Your task to perform on an android device: Open calendar and show me the second week of next month Image 0: 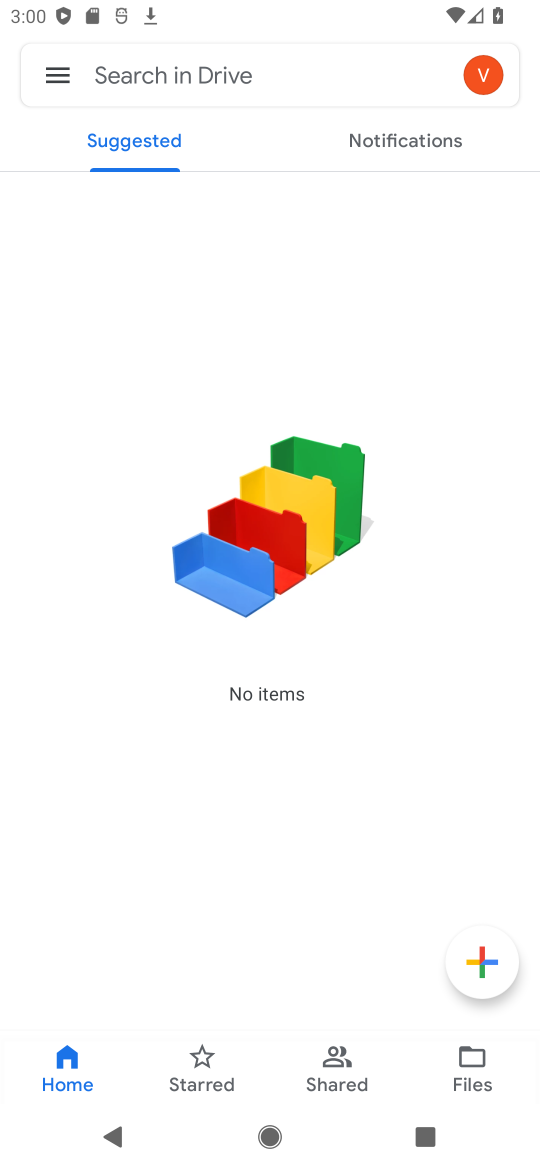
Step 0: press back button
Your task to perform on an android device: Open calendar and show me the second week of next month Image 1: 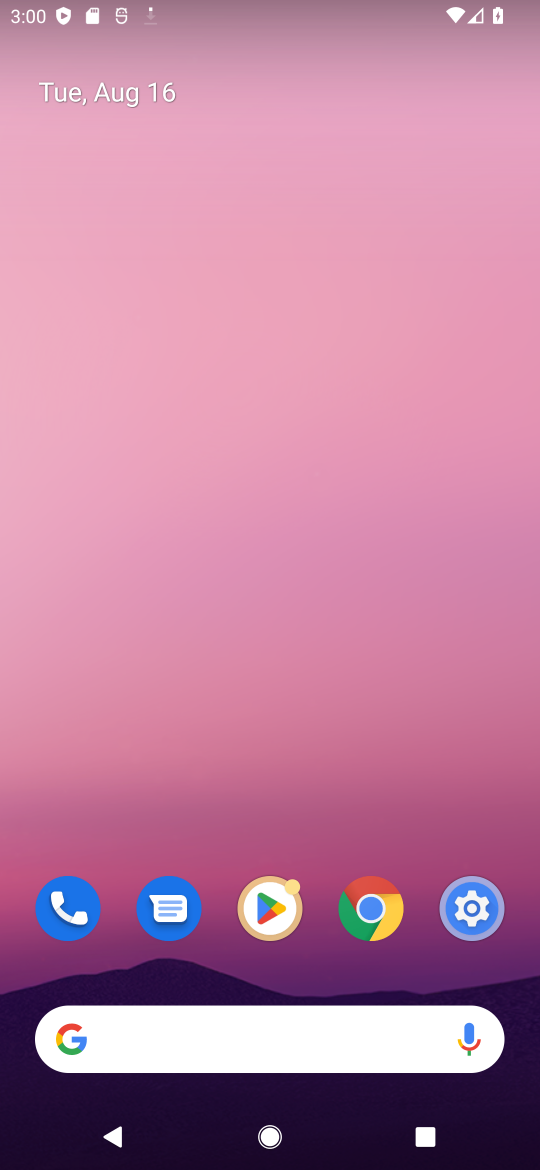
Step 1: drag from (280, 650) to (399, 73)
Your task to perform on an android device: Open calendar and show me the second week of next month Image 2: 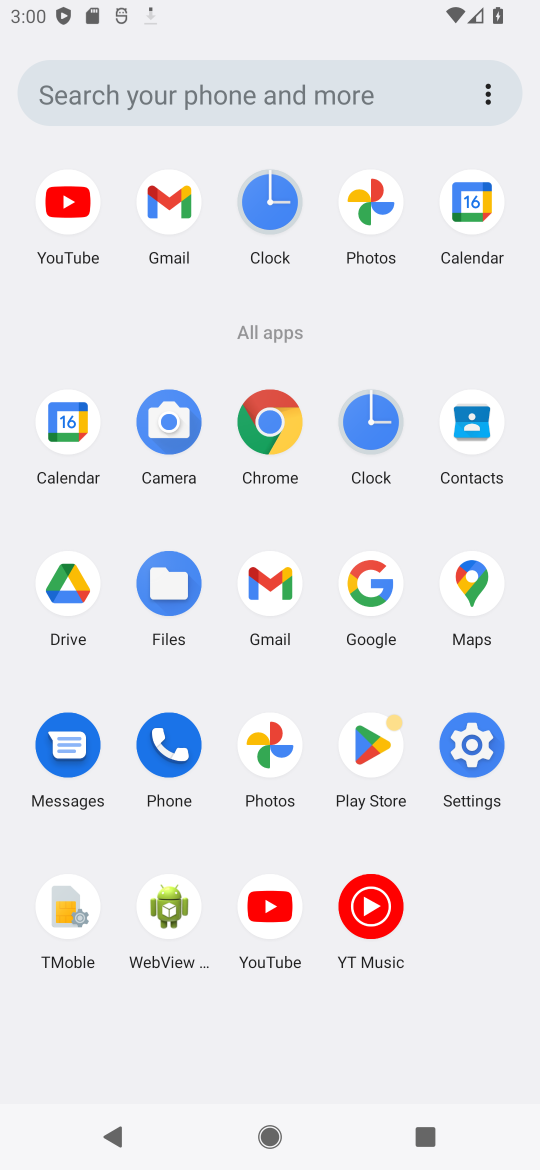
Step 2: click (464, 224)
Your task to perform on an android device: Open calendar and show me the second week of next month Image 3: 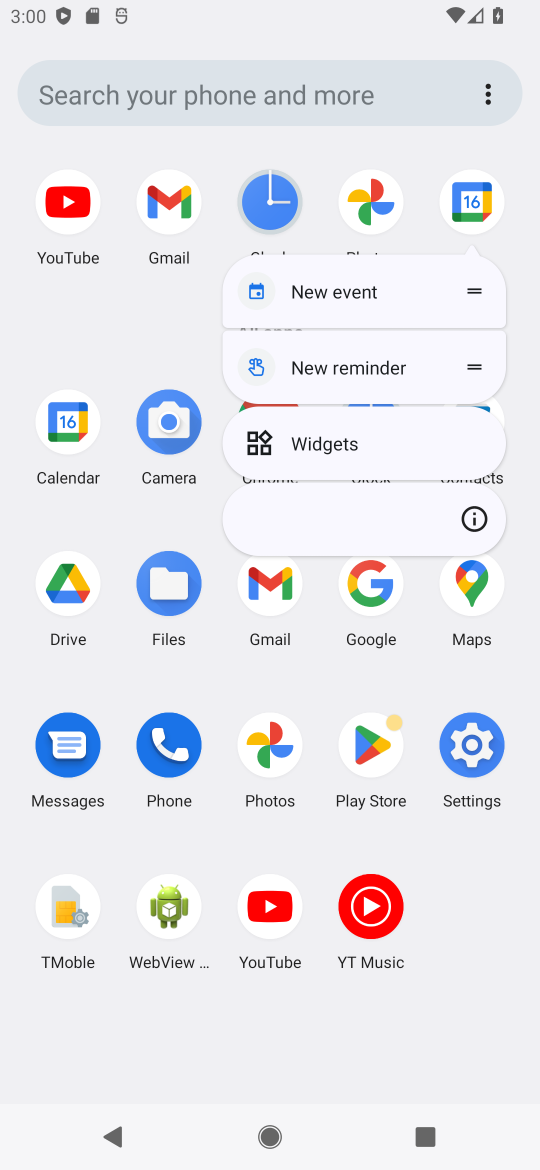
Step 3: click (454, 196)
Your task to perform on an android device: Open calendar and show me the second week of next month Image 4: 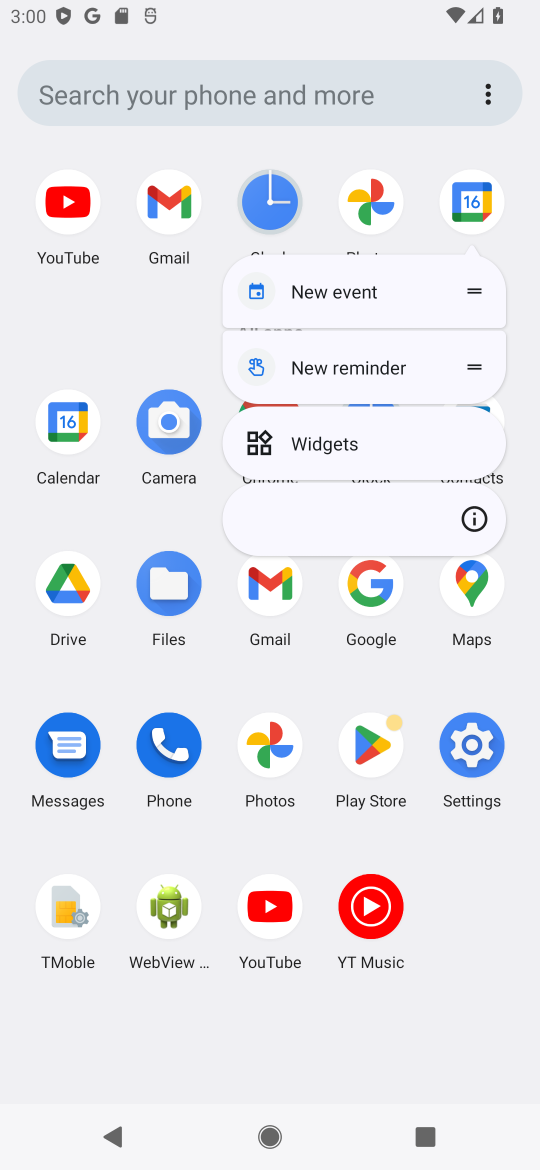
Step 4: click (483, 195)
Your task to perform on an android device: Open calendar and show me the second week of next month Image 5: 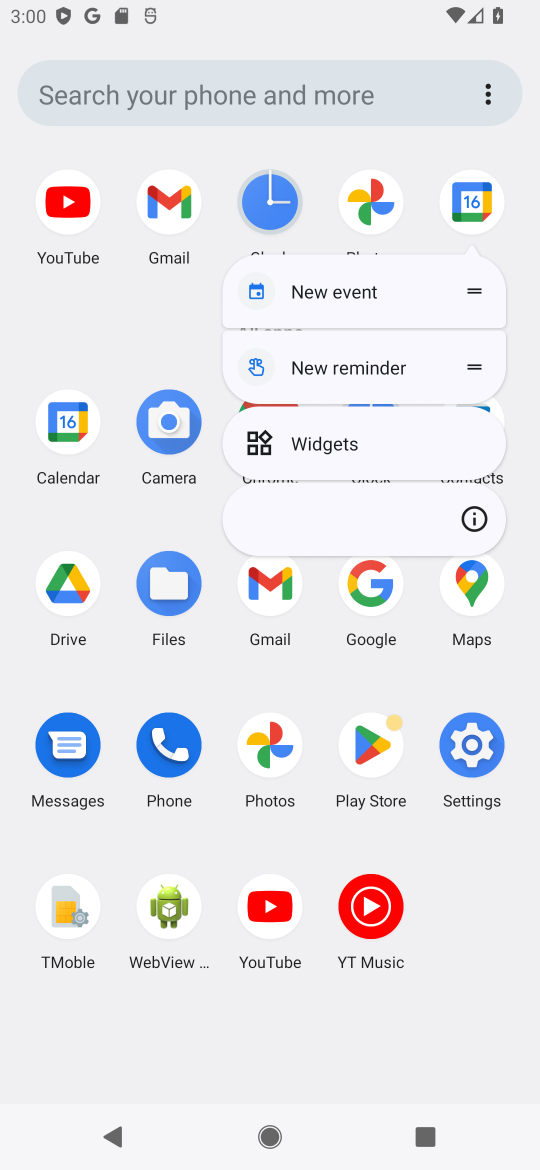
Step 5: click (483, 176)
Your task to perform on an android device: Open calendar and show me the second week of next month Image 6: 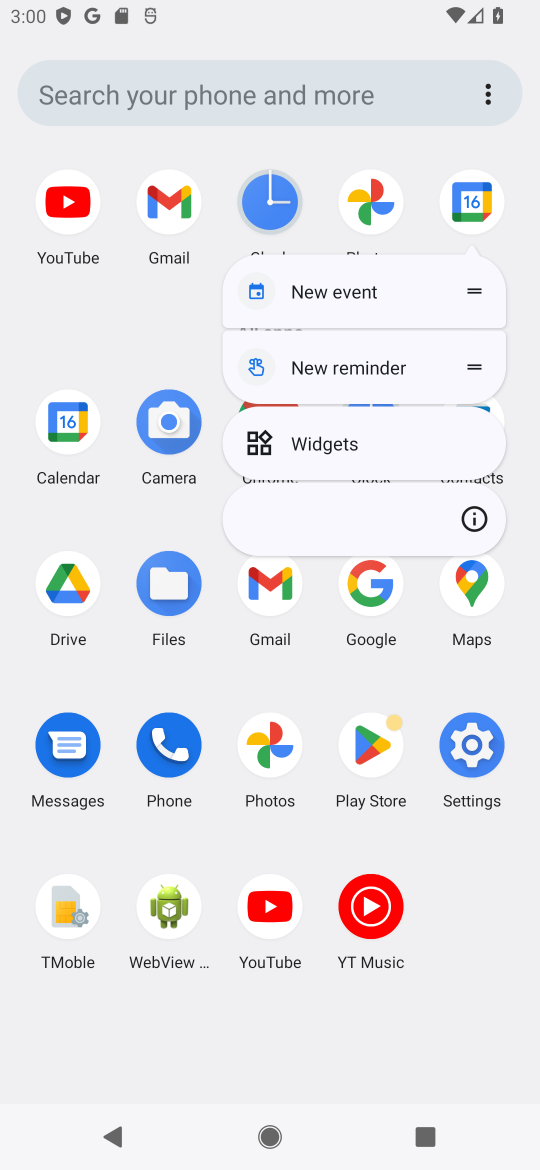
Step 6: click (471, 212)
Your task to perform on an android device: Open calendar and show me the second week of next month Image 7: 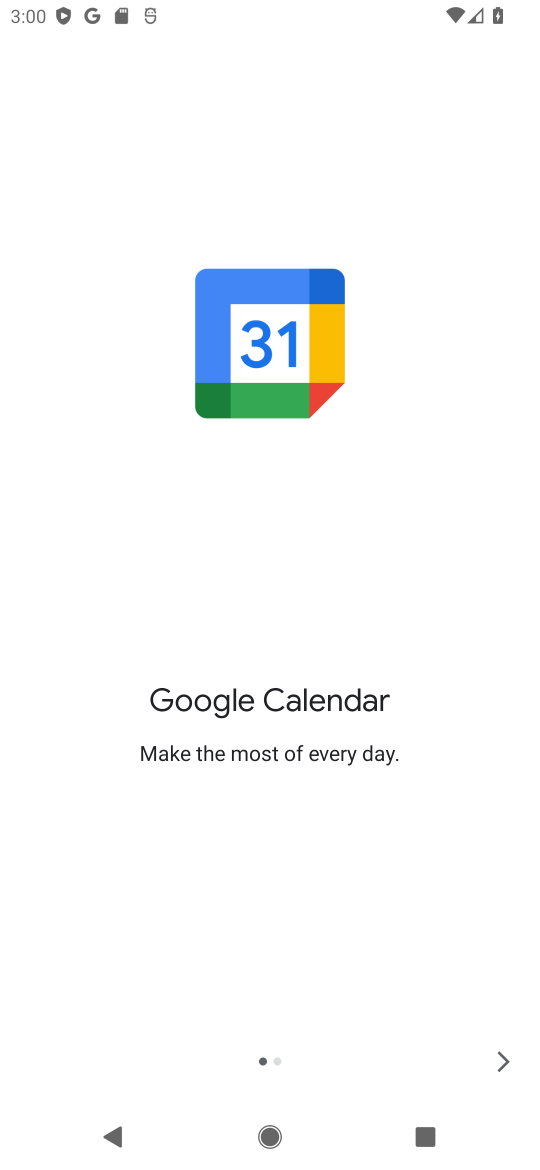
Step 7: click (490, 1072)
Your task to perform on an android device: Open calendar and show me the second week of next month Image 8: 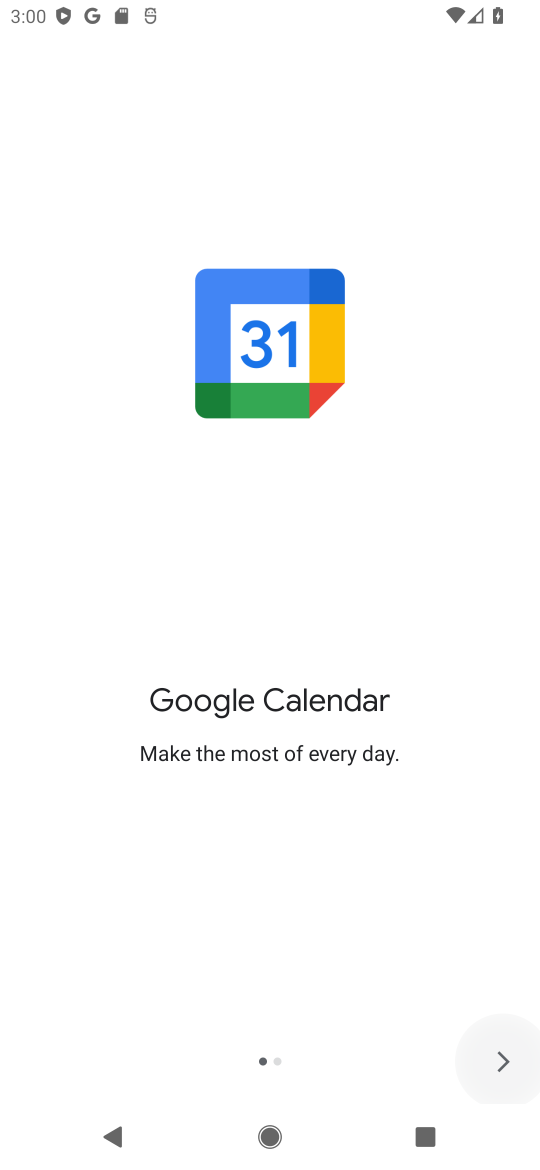
Step 8: click (491, 1071)
Your task to perform on an android device: Open calendar and show me the second week of next month Image 9: 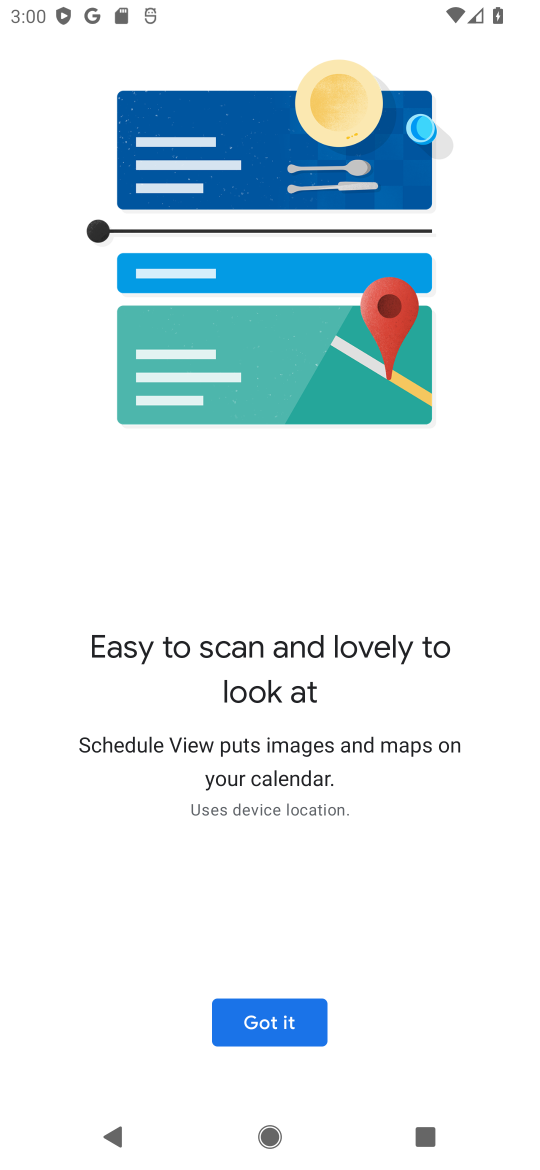
Step 9: click (303, 1030)
Your task to perform on an android device: Open calendar and show me the second week of next month Image 10: 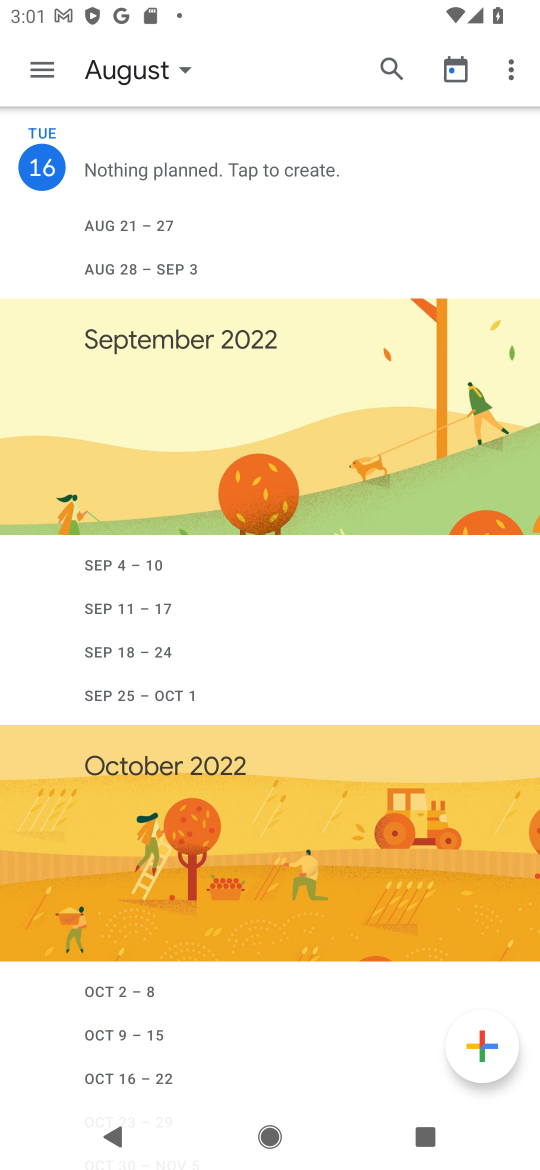
Step 10: click (169, 69)
Your task to perform on an android device: Open calendar and show me the second week of next month Image 11: 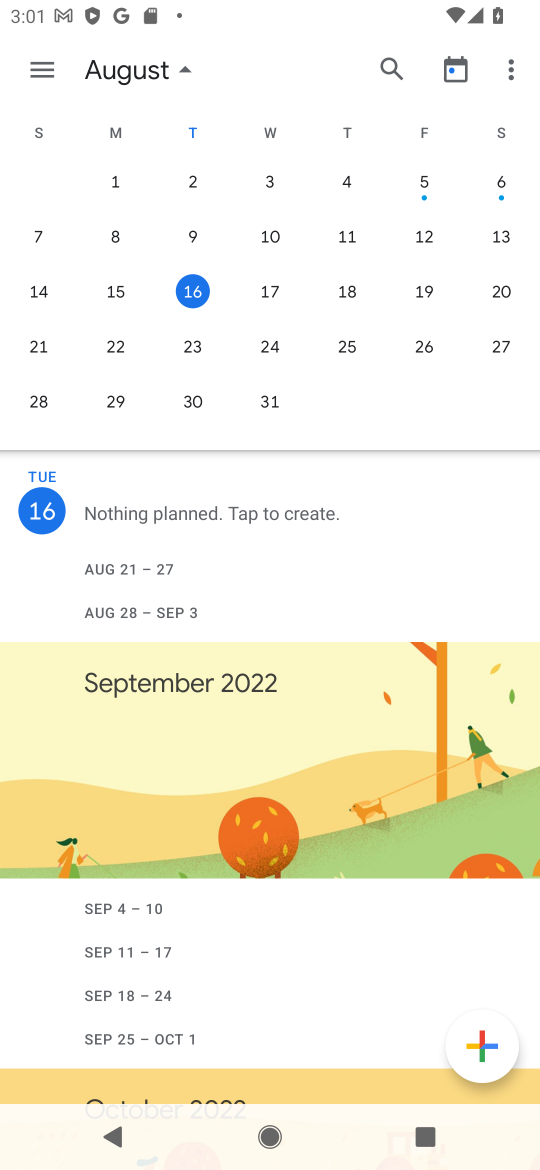
Step 11: drag from (472, 296) to (33, 304)
Your task to perform on an android device: Open calendar and show me the second week of next month Image 12: 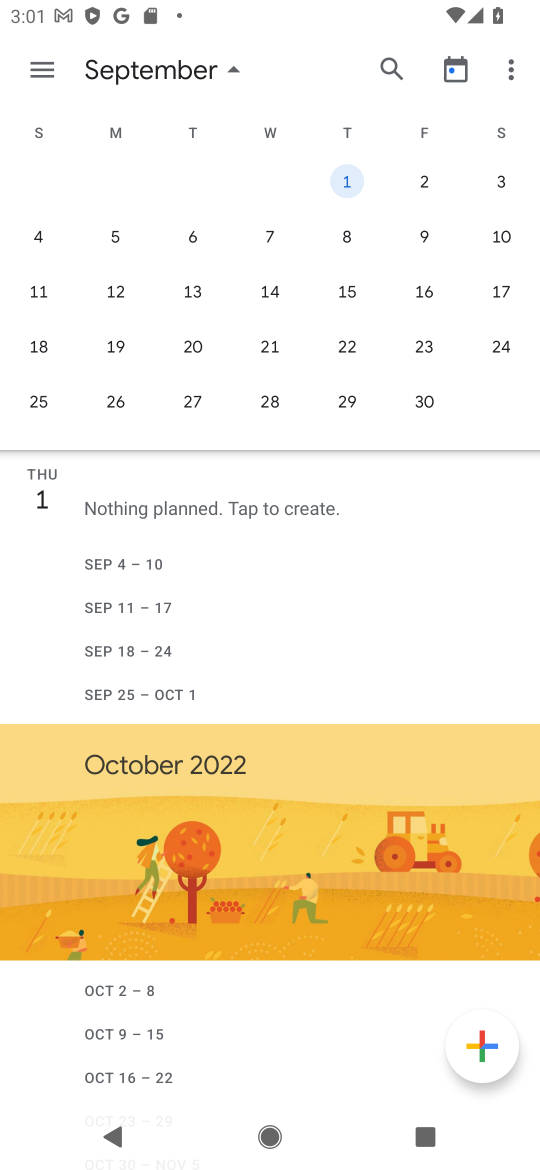
Step 12: click (431, 178)
Your task to perform on an android device: Open calendar and show me the second week of next month Image 13: 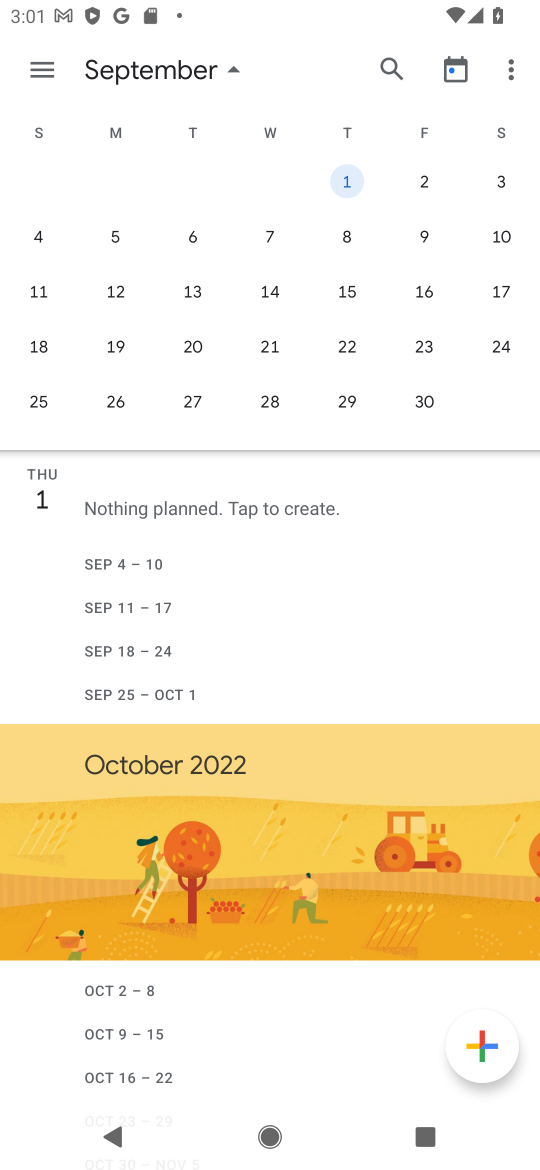
Step 13: click (424, 184)
Your task to perform on an android device: Open calendar and show me the second week of next month Image 14: 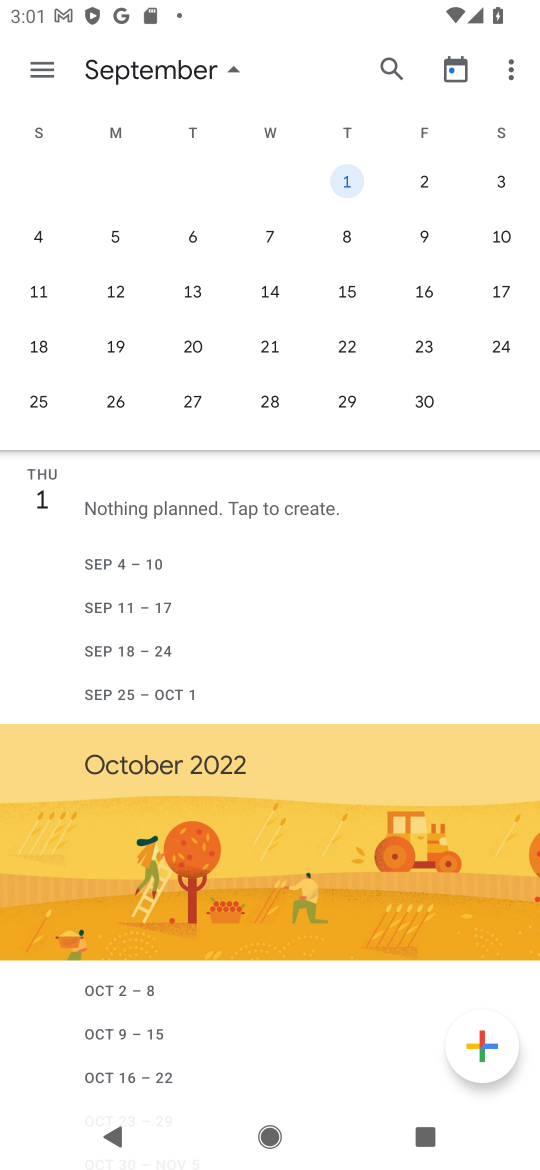
Step 14: click (424, 184)
Your task to perform on an android device: Open calendar and show me the second week of next month Image 15: 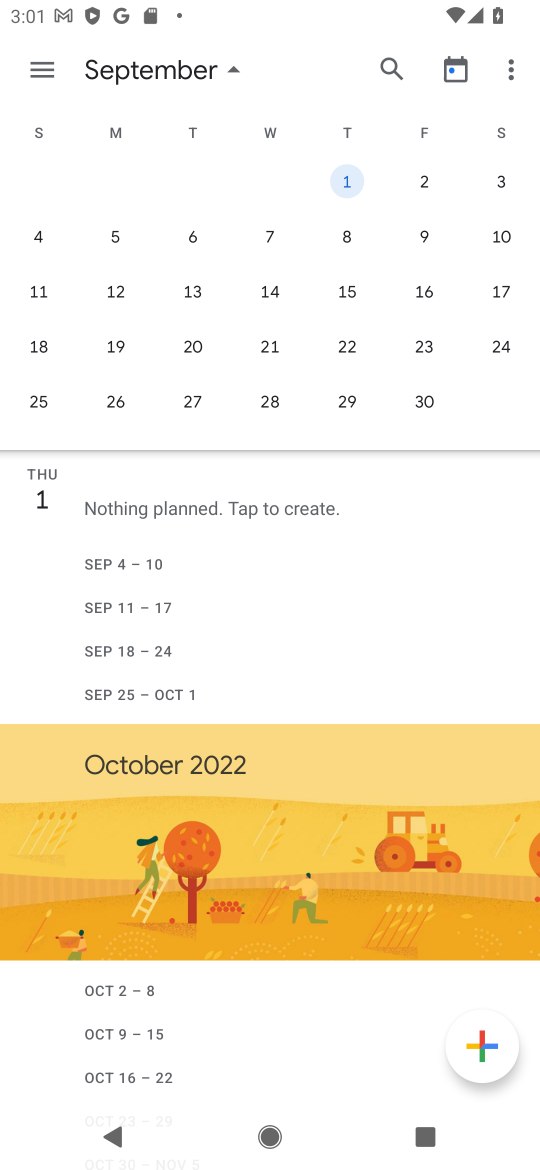
Step 15: click (426, 178)
Your task to perform on an android device: Open calendar and show me the second week of next month Image 16: 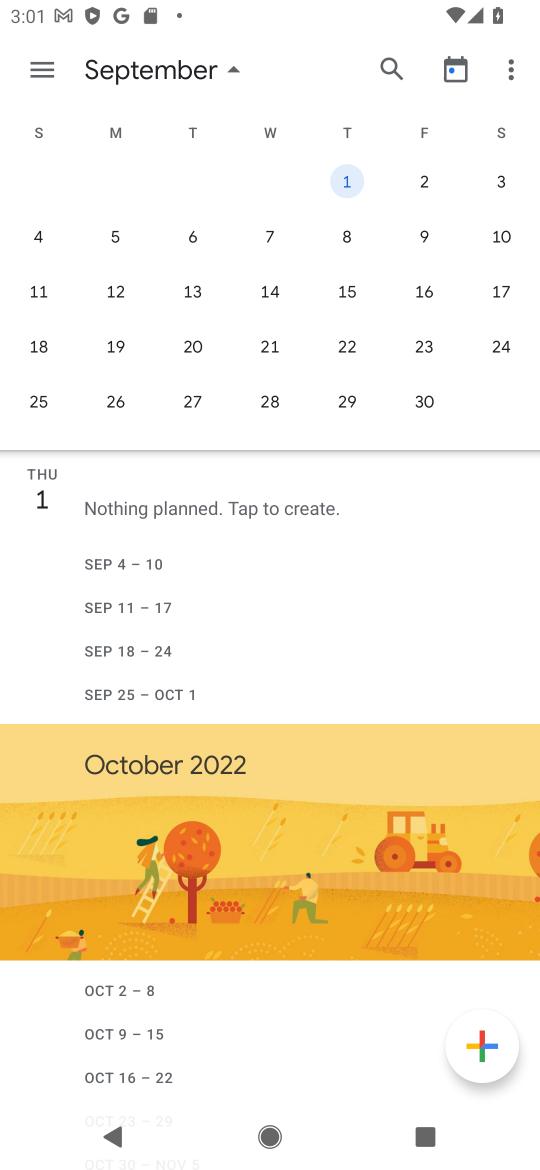
Step 16: task complete